Your task to perform on an android device: Open the web browser Image 0: 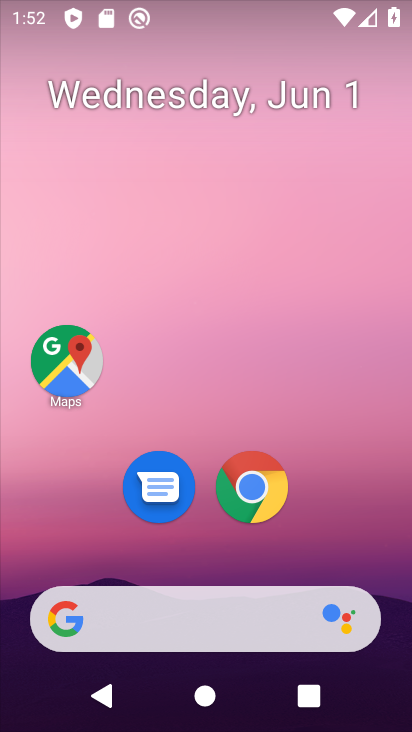
Step 0: drag from (377, 539) to (322, 137)
Your task to perform on an android device: Open the web browser Image 1: 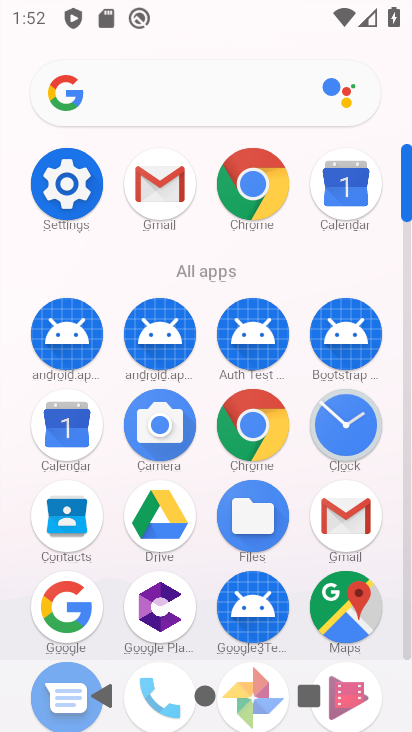
Step 1: click (245, 438)
Your task to perform on an android device: Open the web browser Image 2: 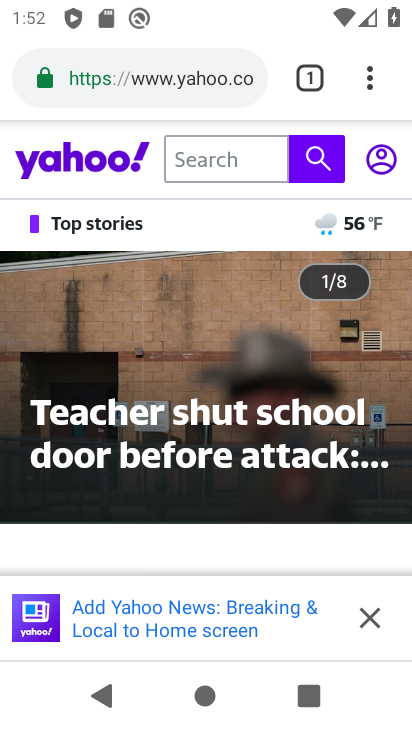
Step 2: task complete